Your task to perform on an android device: install app "Chime – Mobile Banking" Image 0: 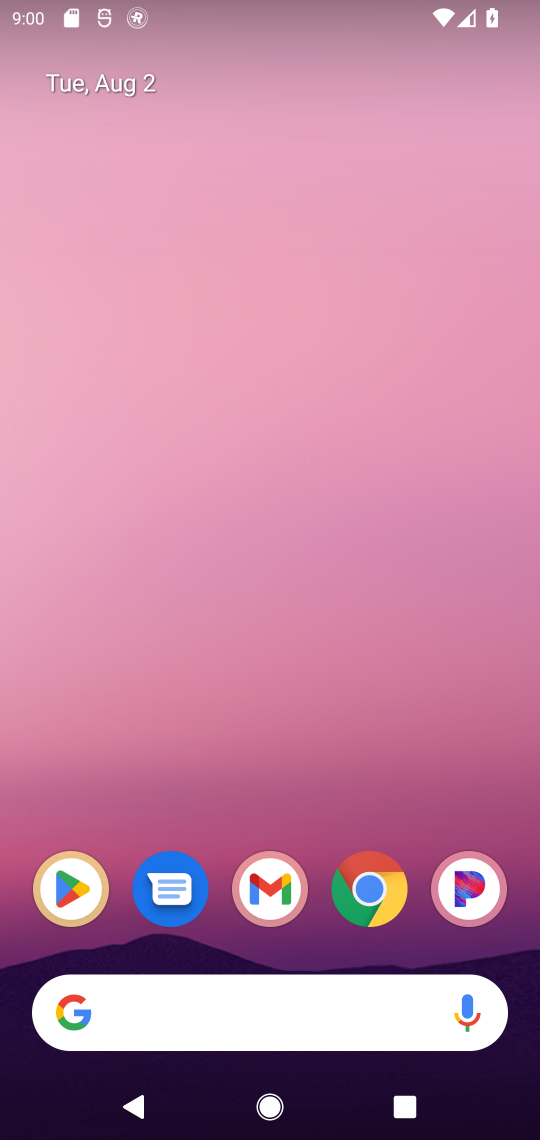
Step 0: press home button
Your task to perform on an android device: install app "Chime – Mobile Banking" Image 1: 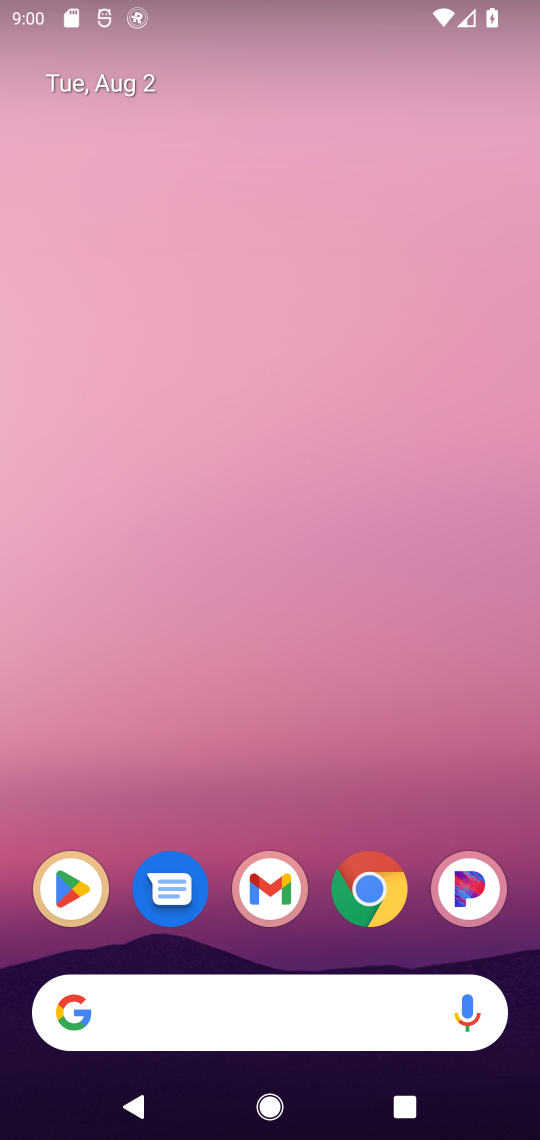
Step 1: click (71, 886)
Your task to perform on an android device: install app "Chime – Mobile Banking" Image 2: 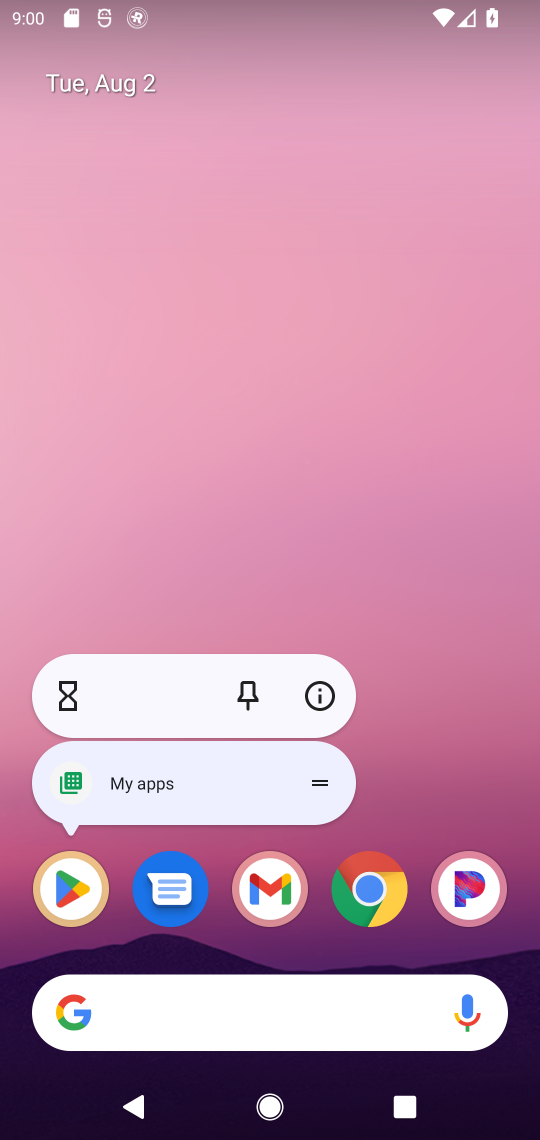
Step 2: click (71, 887)
Your task to perform on an android device: install app "Chime – Mobile Banking" Image 3: 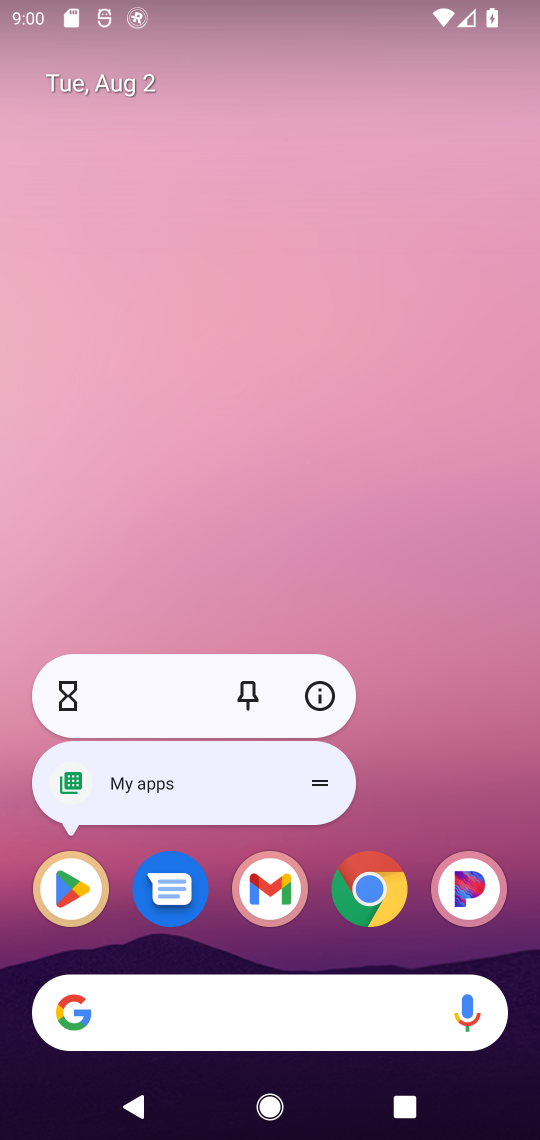
Step 3: click (71, 886)
Your task to perform on an android device: install app "Chime – Mobile Banking" Image 4: 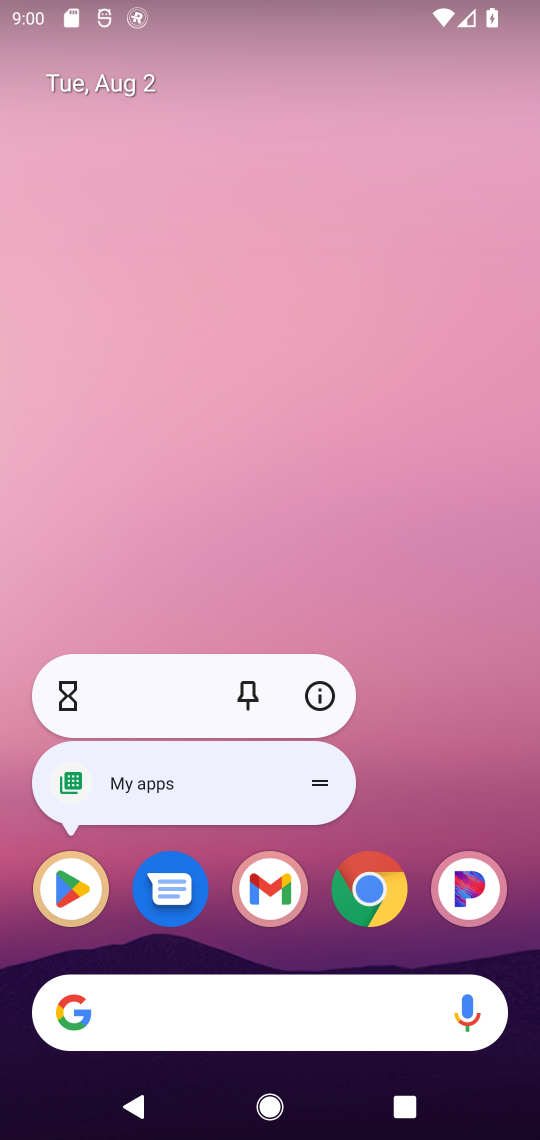
Step 4: click (71, 889)
Your task to perform on an android device: install app "Chime – Mobile Banking" Image 5: 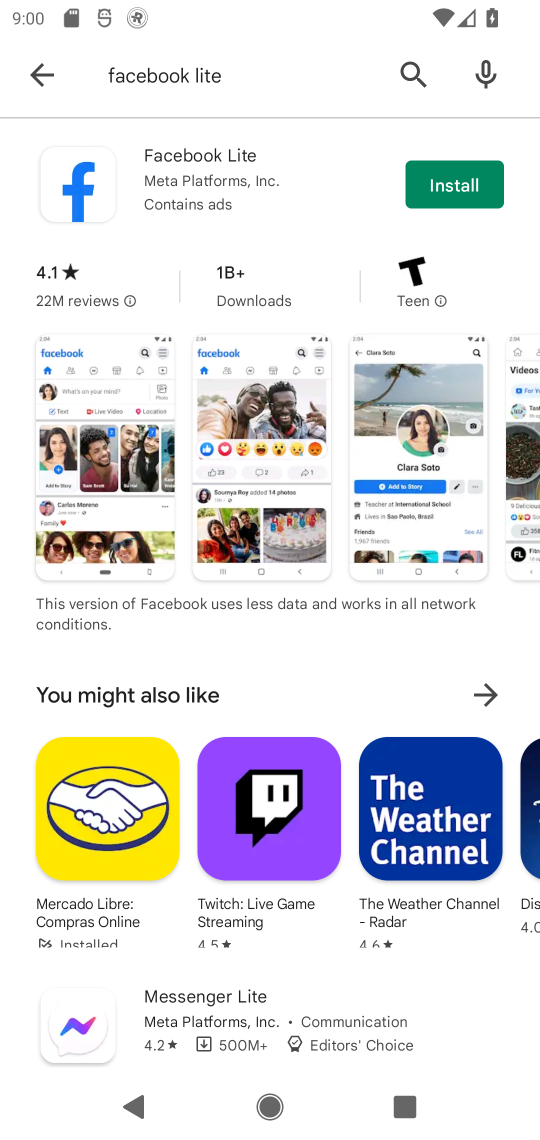
Step 5: click (409, 67)
Your task to perform on an android device: install app "Chime – Mobile Banking" Image 6: 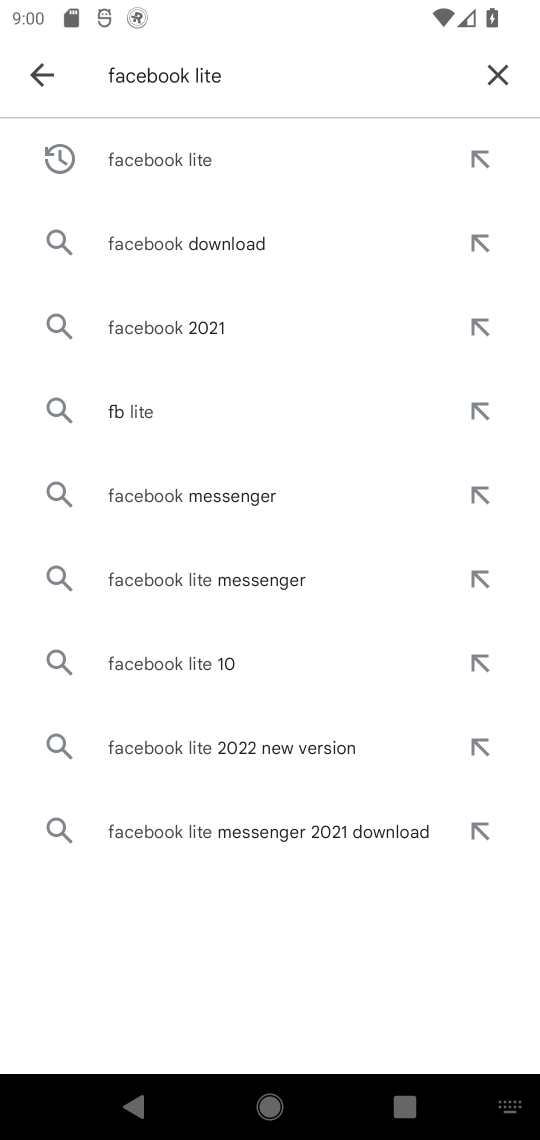
Step 6: click (499, 59)
Your task to perform on an android device: install app "Chime – Mobile Banking" Image 7: 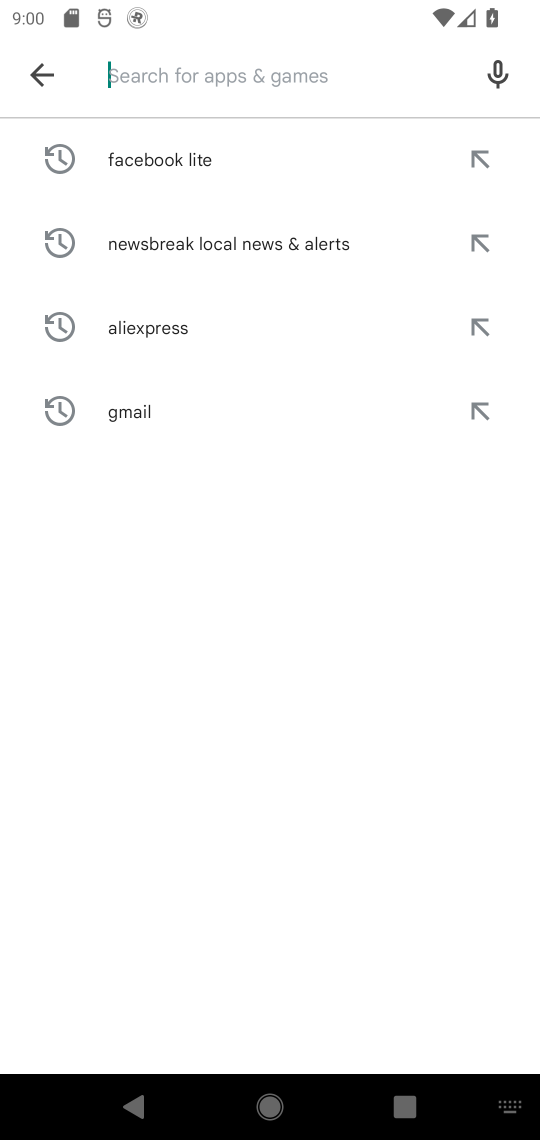
Step 7: type "Chime – Mobile Banking"
Your task to perform on an android device: install app "Chime – Mobile Banking" Image 8: 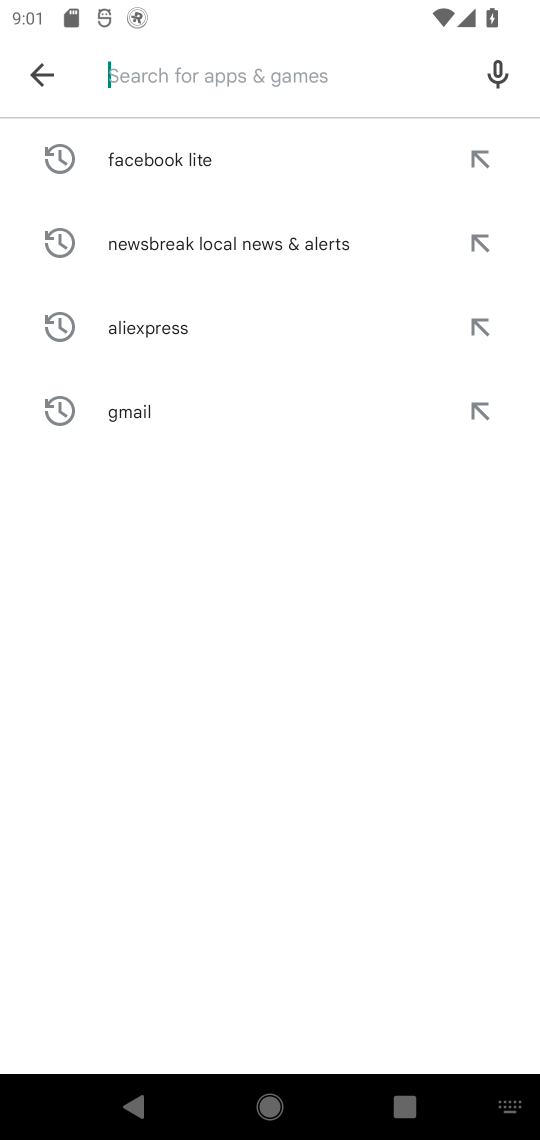
Step 8: type "Chime – Mobile Banking"
Your task to perform on an android device: install app "Chime – Mobile Banking" Image 9: 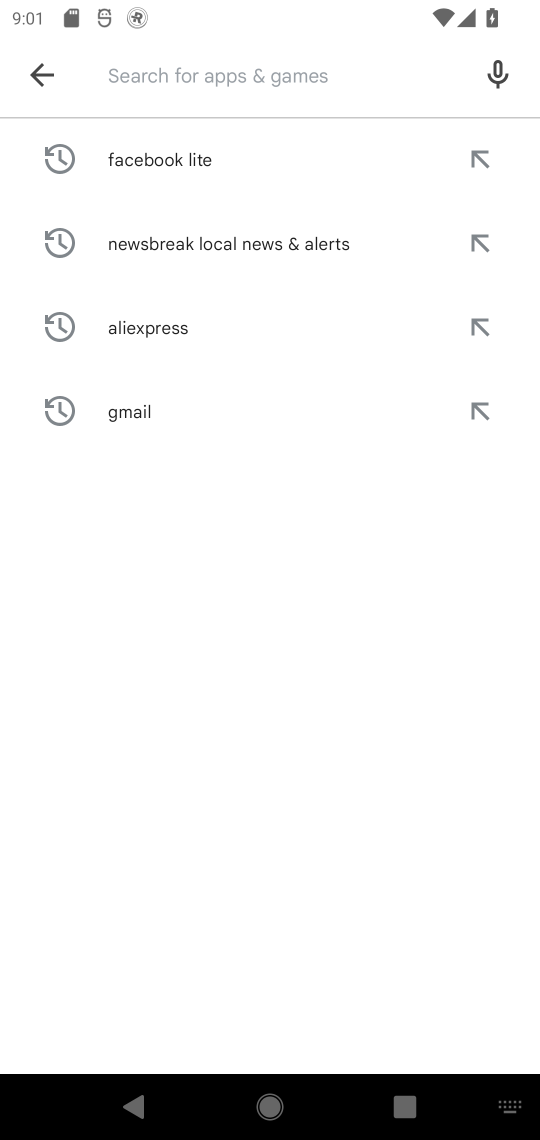
Step 9: type "Chime Mobile Banking"
Your task to perform on an android device: install app "Chime – Mobile Banking" Image 10: 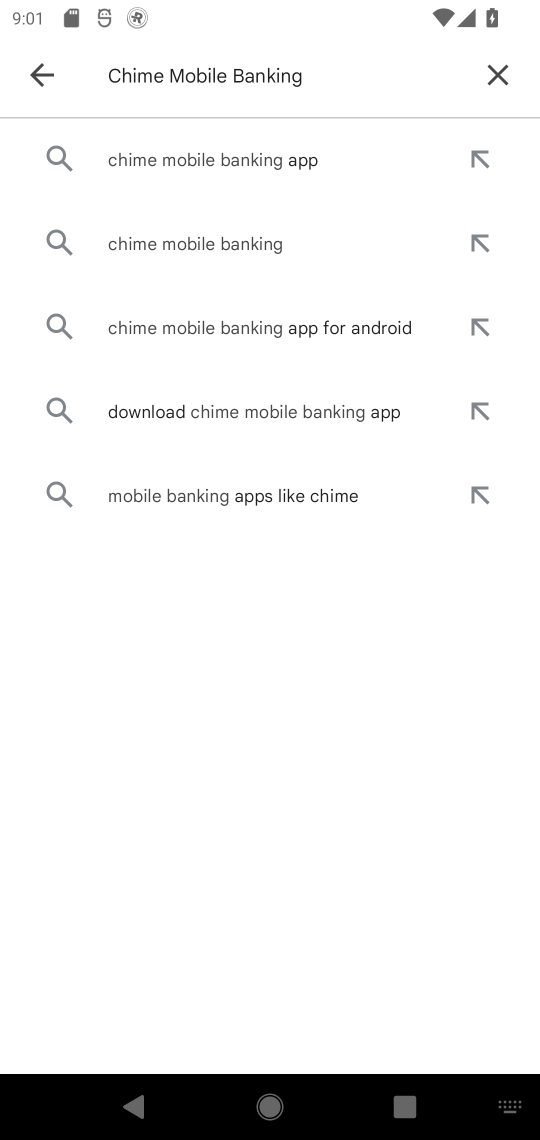
Step 10: click (233, 159)
Your task to perform on an android device: install app "Chime – Mobile Banking" Image 11: 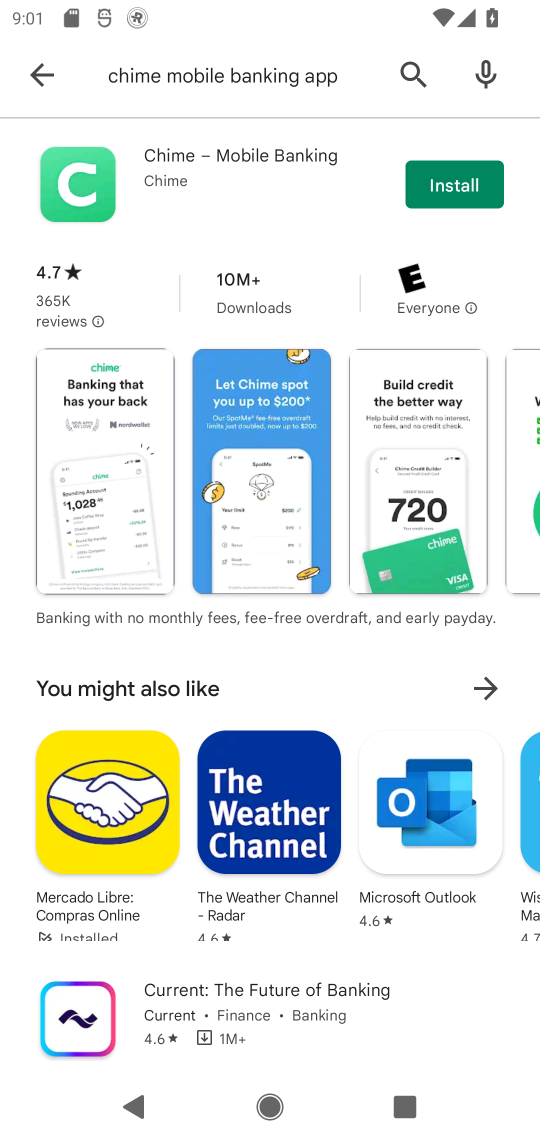
Step 11: click (458, 180)
Your task to perform on an android device: install app "Chime – Mobile Banking" Image 12: 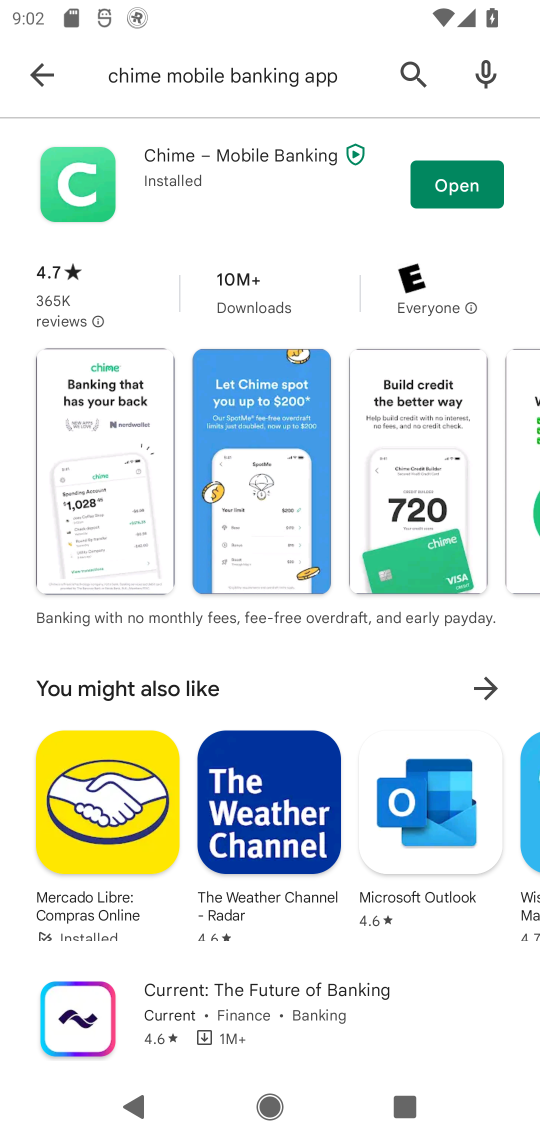
Step 12: task complete